Your task to perform on an android device: turn on improve location accuracy Image 0: 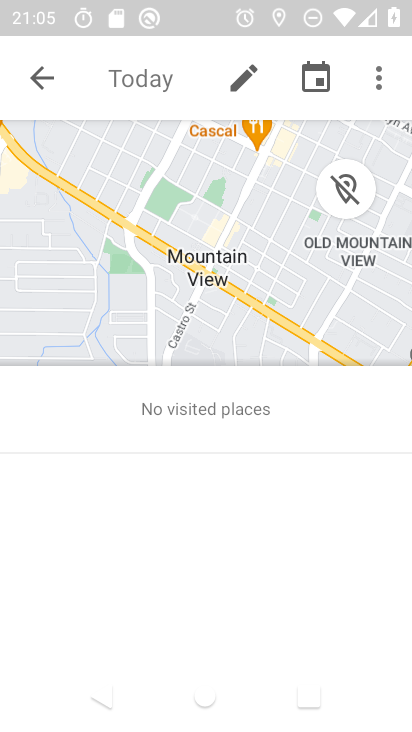
Step 0: press home button
Your task to perform on an android device: turn on improve location accuracy Image 1: 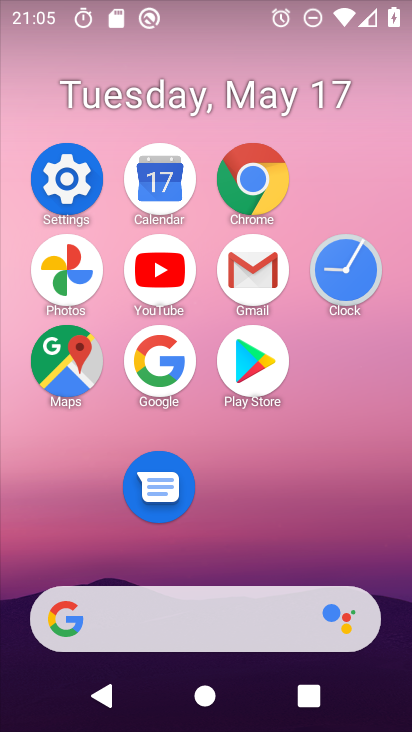
Step 1: click (69, 189)
Your task to perform on an android device: turn on improve location accuracy Image 2: 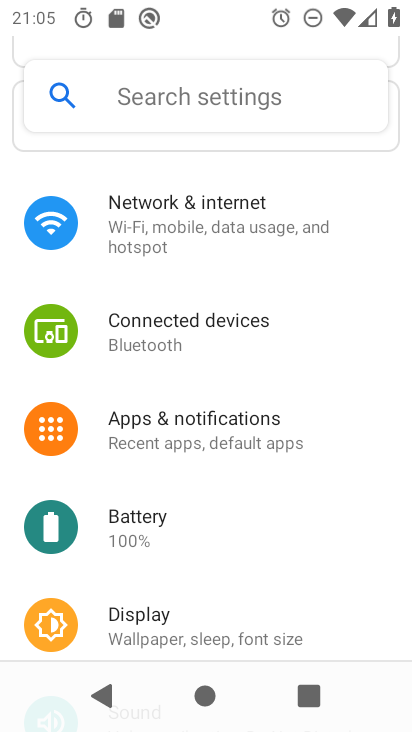
Step 2: drag from (198, 540) to (241, 182)
Your task to perform on an android device: turn on improve location accuracy Image 3: 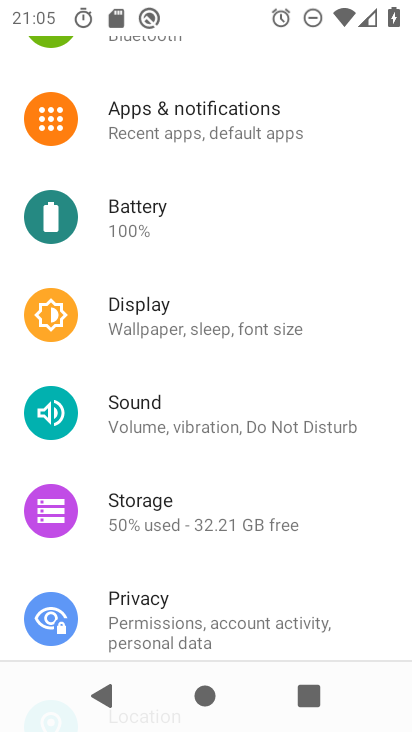
Step 3: drag from (177, 577) to (210, 248)
Your task to perform on an android device: turn on improve location accuracy Image 4: 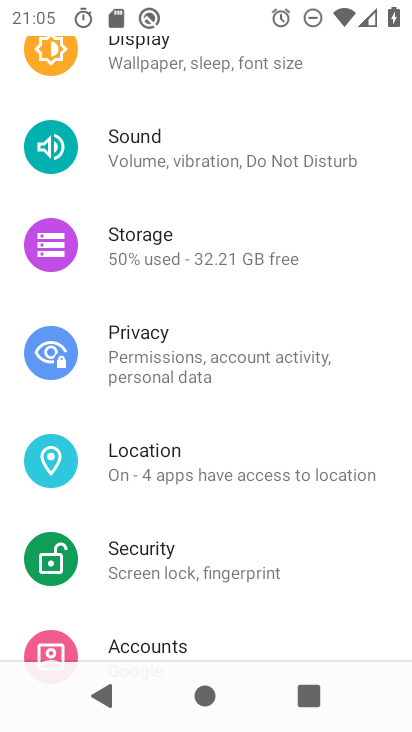
Step 4: click (191, 444)
Your task to perform on an android device: turn on improve location accuracy Image 5: 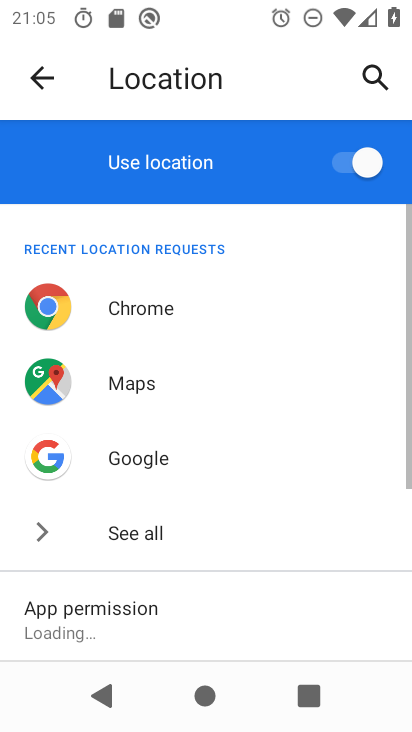
Step 5: drag from (198, 579) to (250, 174)
Your task to perform on an android device: turn on improve location accuracy Image 6: 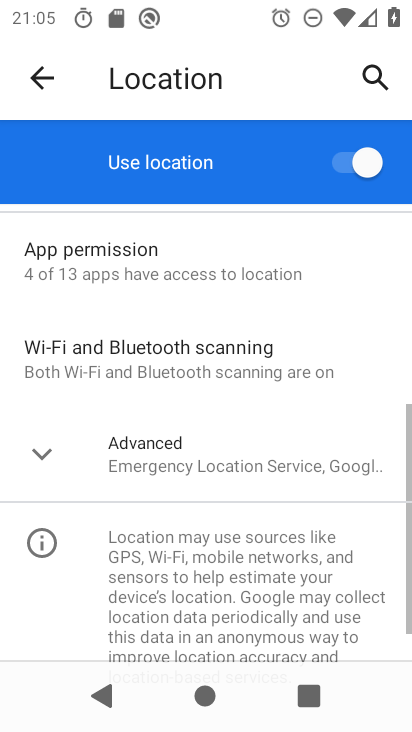
Step 6: click (189, 448)
Your task to perform on an android device: turn on improve location accuracy Image 7: 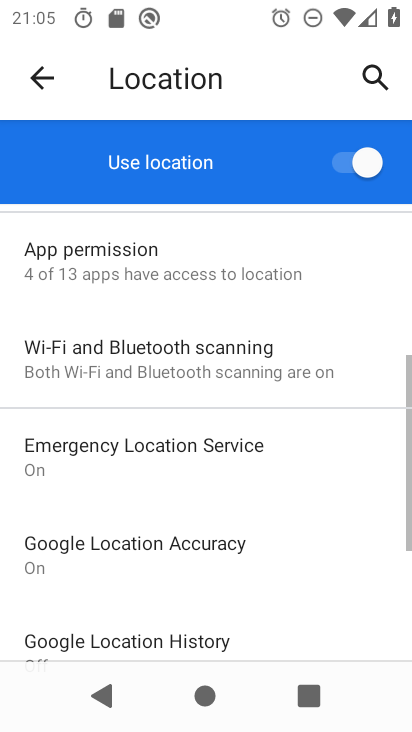
Step 7: drag from (158, 565) to (185, 220)
Your task to perform on an android device: turn on improve location accuracy Image 8: 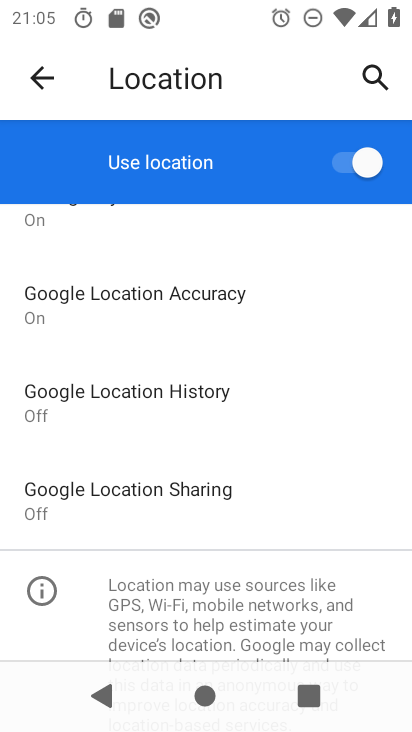
Step 8: click (186, 399)
Your task to perform on an android device: turn on improve location accuracy Image 9: 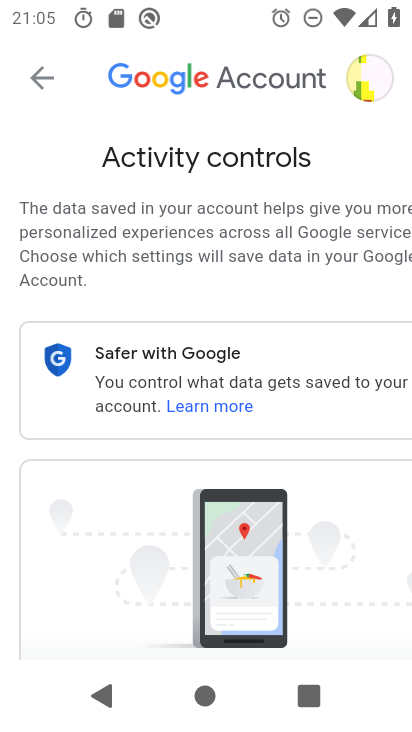
Step 9: task complete